Your task to perform on an android device: Open calendar and show me the third week of next month Image 0: 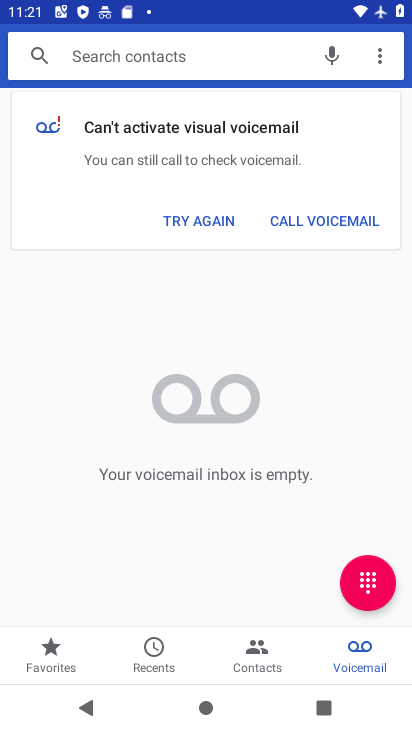
Step 0: press home button
Your task to perform on an android device: Open calendar and show me the third week of next month Image 1: 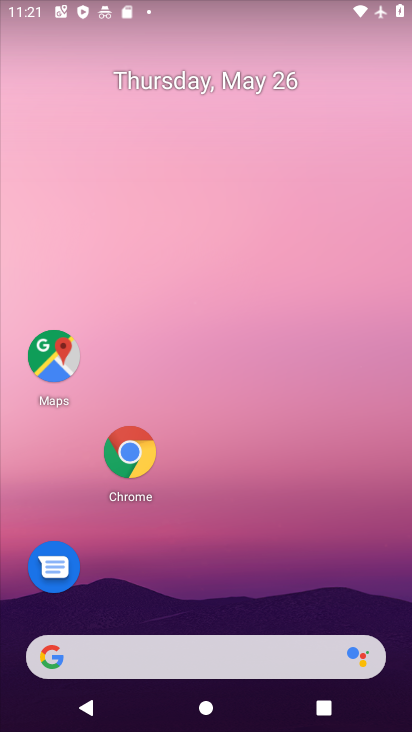
Step 1: drag from (159, 658) to (345, 190)
Your task to perform on an android device: Open calendar and show me the third week of next month Image 2: 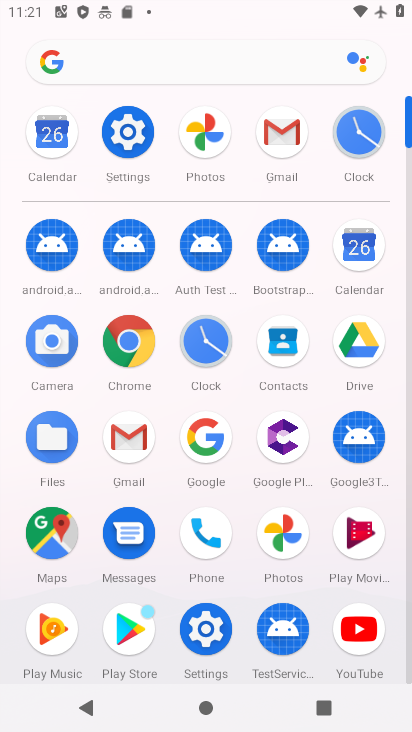
Step 2: click (360, 256)
Your task to perform on an android device: Open calendar and show me the third week of next month Image 3: 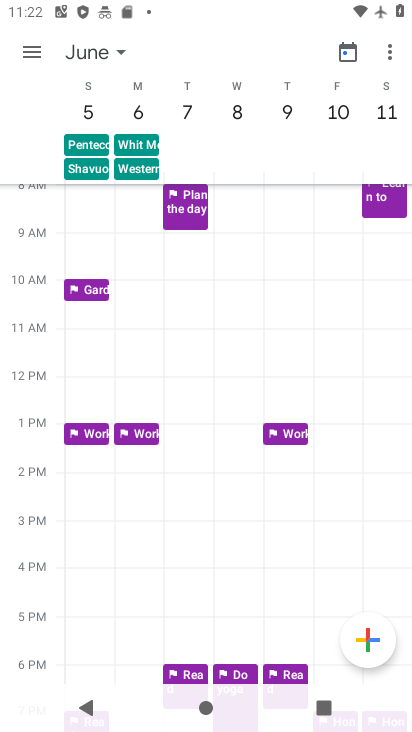
Step 3: click (101, 51)
Your task to perform on an android device: Open calendar and show me the third week of next month Image 4: 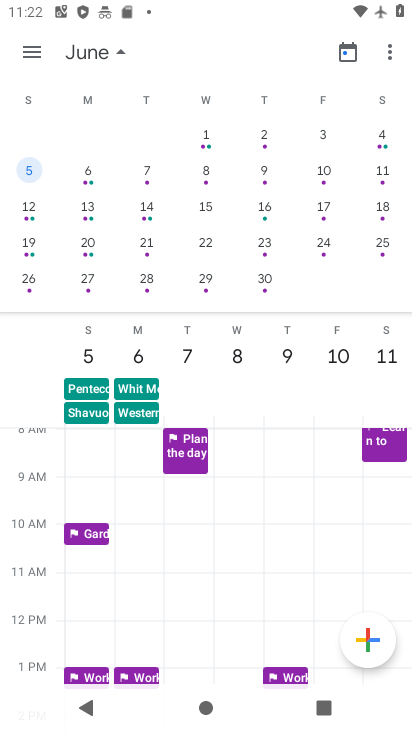
Step 4: click (33, 206)
Your task to perform on an android device: Open calendar and show me the third week of next month Image 5: 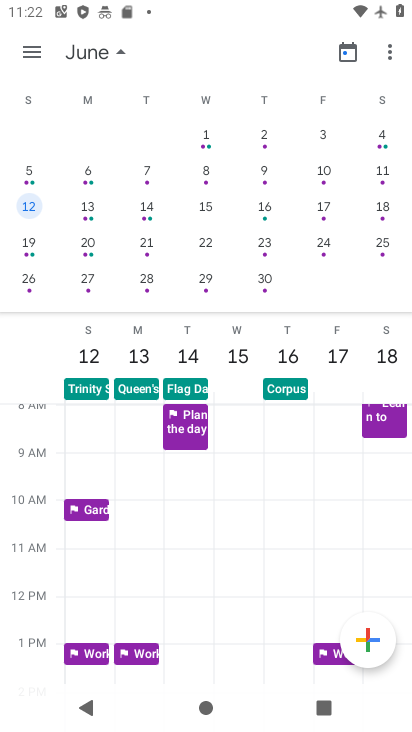
Step 5: click (41, 56)
Your task to perform on an android device: Open calendar and show me the third week of next month Image 6: 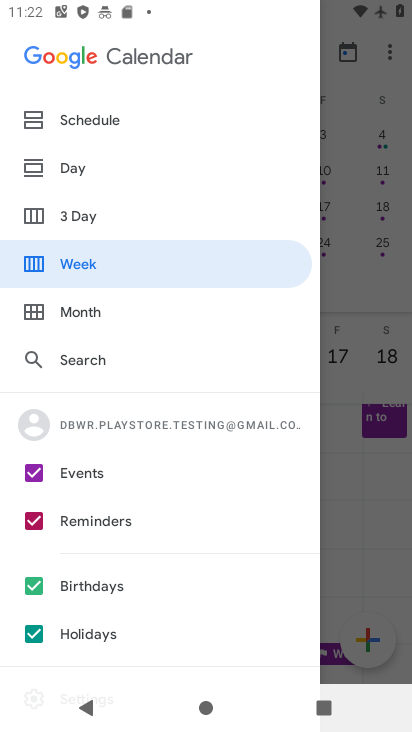
Step 6: click (81, 265)
Your task to perform on an android device: Open calendar and show me the third week of next month Image 7: 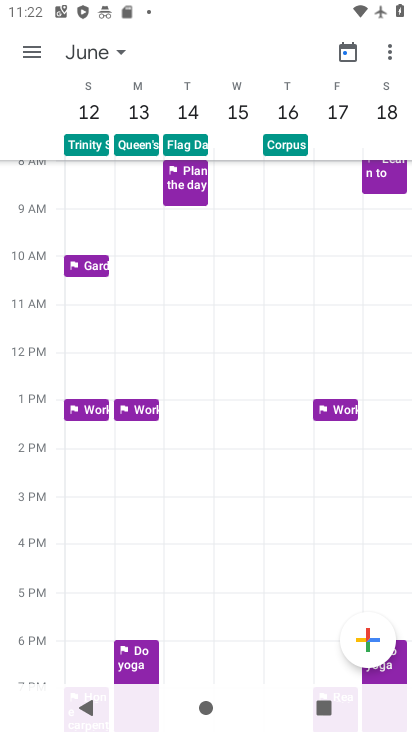
Step 7: task complete